Your task to perform on an android device: Open the stopwatch Image 0: 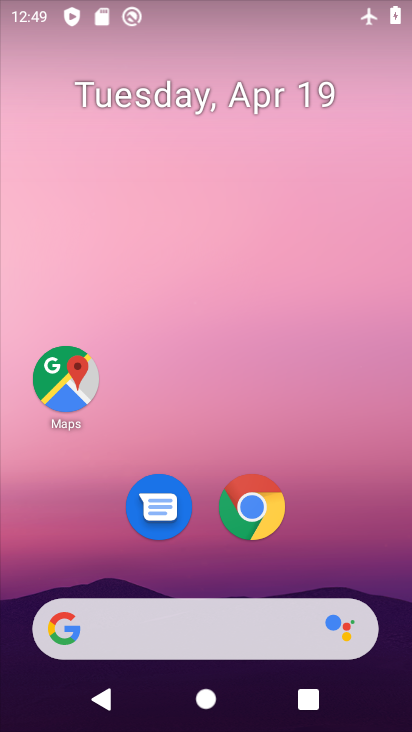
Step 0: drag from (213, 565) to (206, 61)
Your task to perform on an android device: Open the stopwatch Image 1: 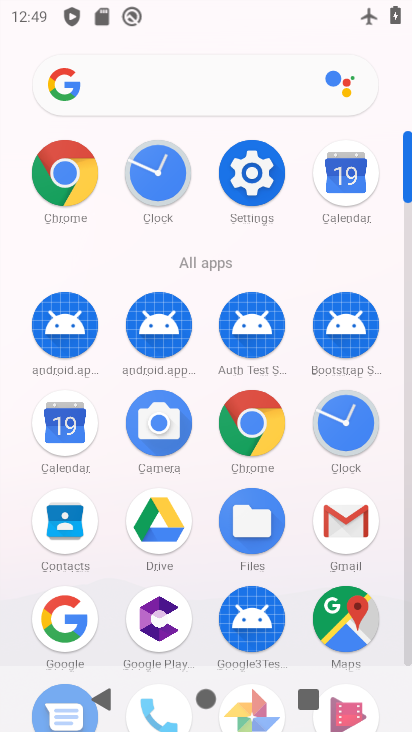
Step 1: click (152, 169)
Your task to perform on an android device: Open the stopwatch Image 2: 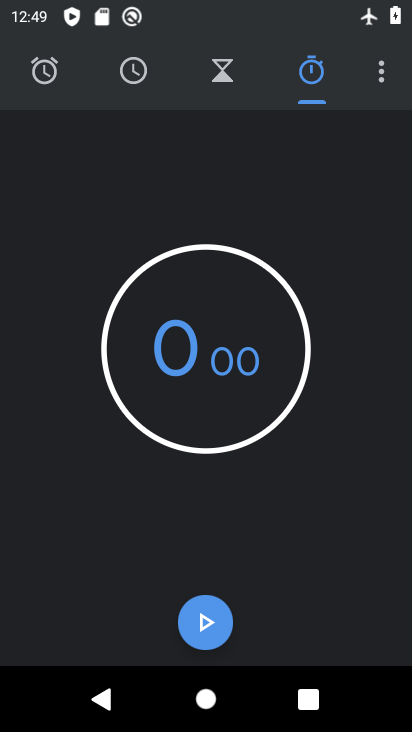
Step 2: click (205, 617)
Your task to perform on an android device: Open the stopwatch Image 3: 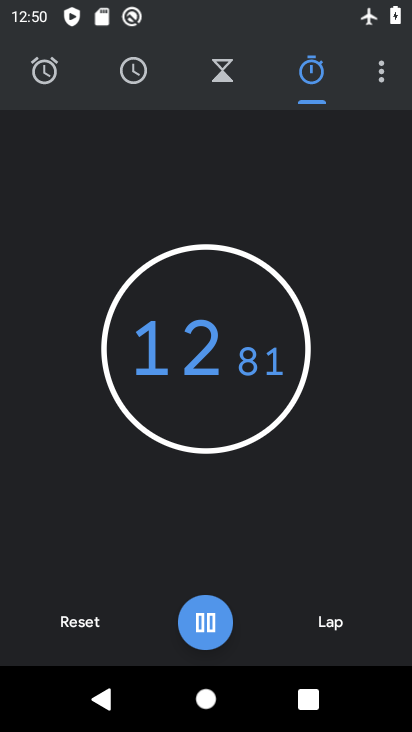
Step 3: click (82, 624)
Your task to perform on an android device: Open the stopwatch Image 4: 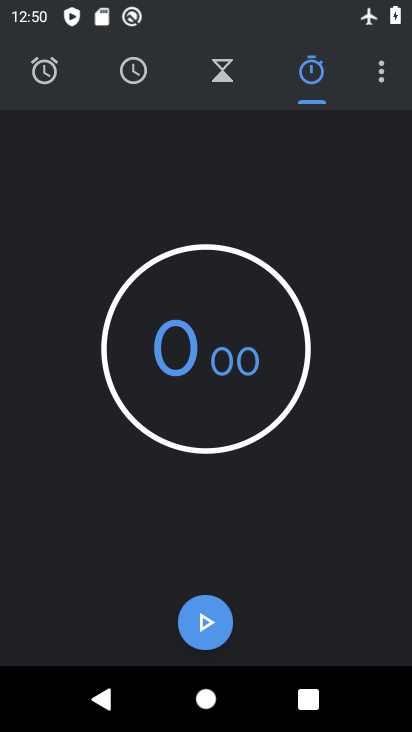
Step 4: task complete